Your task to perform on an android device: Go to eBay Image 0: 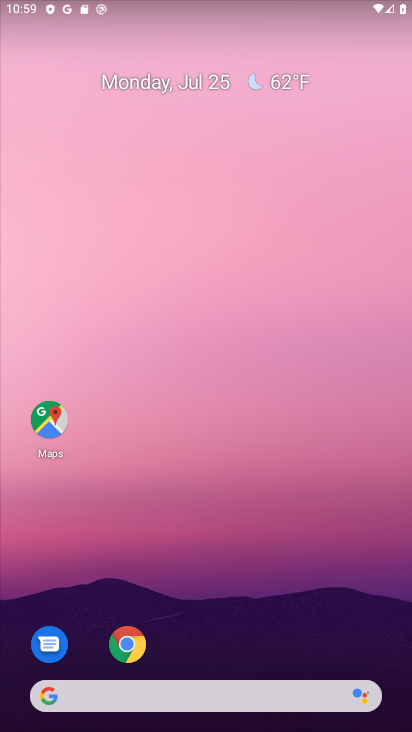
Step 0: click (134, 648)
Your task to perform on an android device: Go to eBay Image 1: 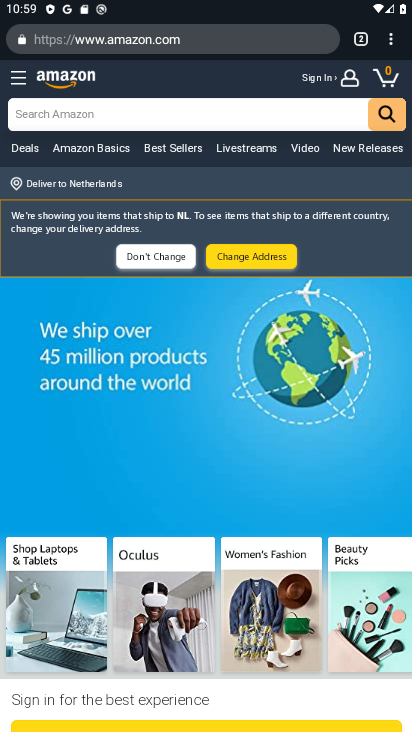
Step 1: click (365, 36)
Your task to perform on an android device: Go to eBay Image 2: 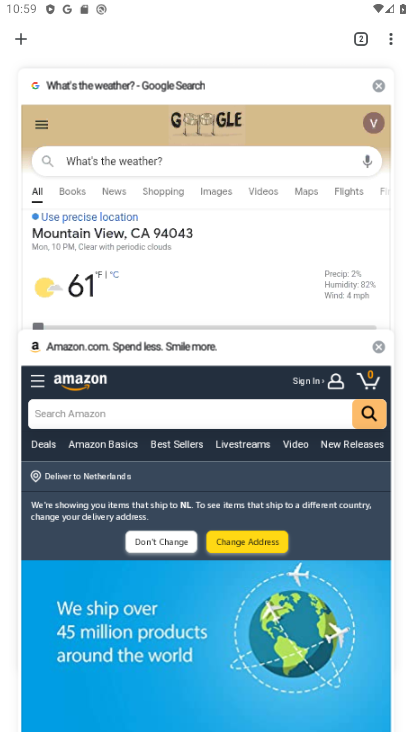
Step 2: click (20, 40)
Your task to perform on an android device: Go to eBay Image 3: 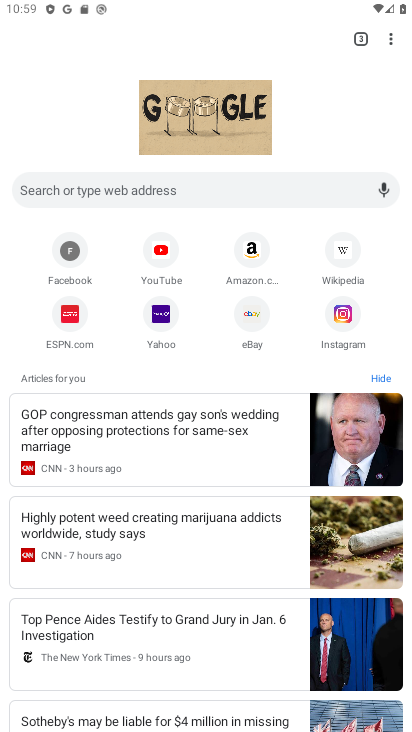
Step 3: click (255, 323)
Your task to perform on an android device: Go to eBay Image 4: 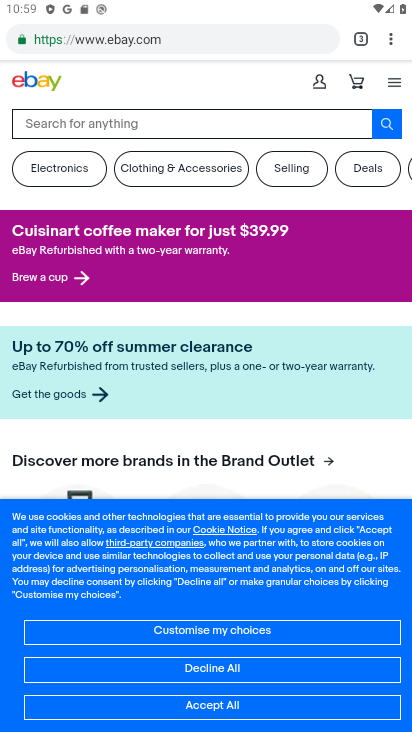
Step 4: task complete